Your task to perform on an android device: set an alarm Image 0: 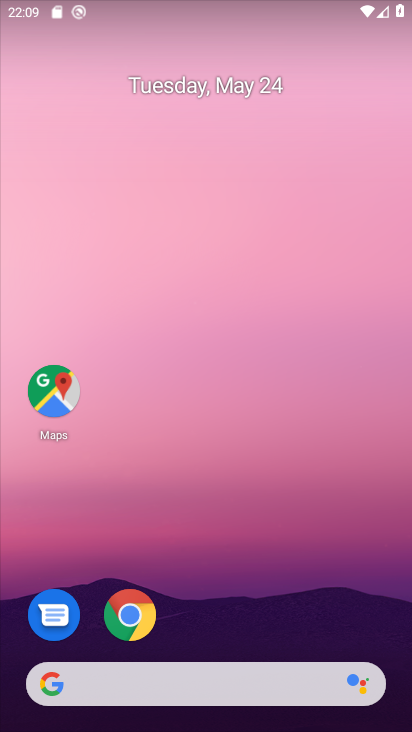
Step 0: drag from (220, 614) to (237, 219)
Your task to perform on an android device: set an alarm Image 1: 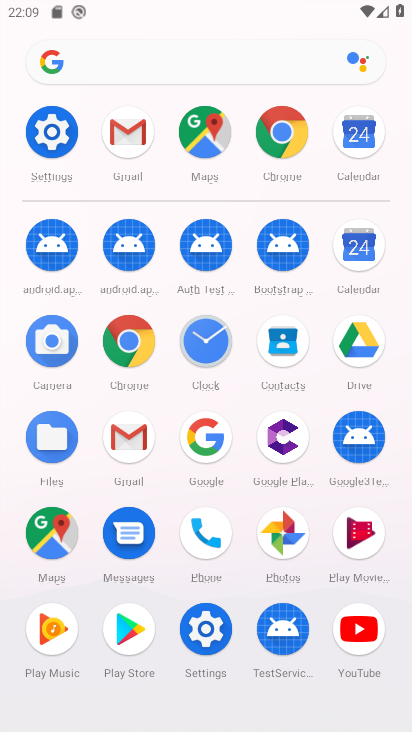
Step 1: click (198, 343)
Your task to perform on an android device: set an alarm Image 2: 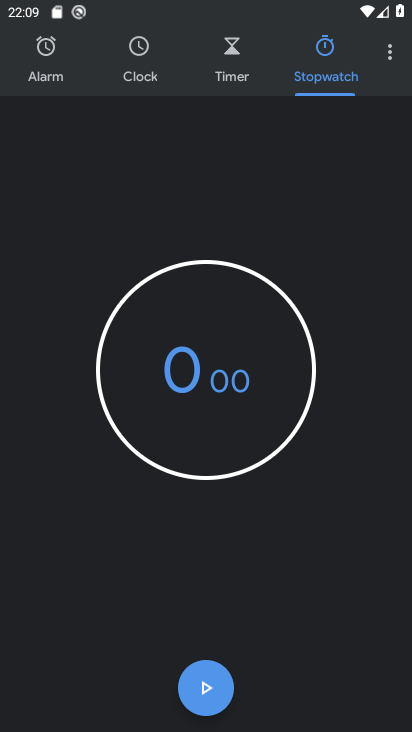
Step 2: click (39, 62)
Your task to perform on an android device: set an alarm Image 3: 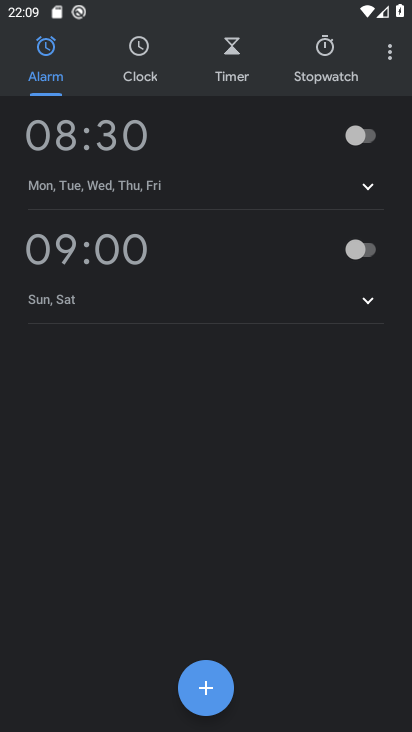
Step 3: click (367, 136)
Your task to perform on an android device: set an alarm Image 4: 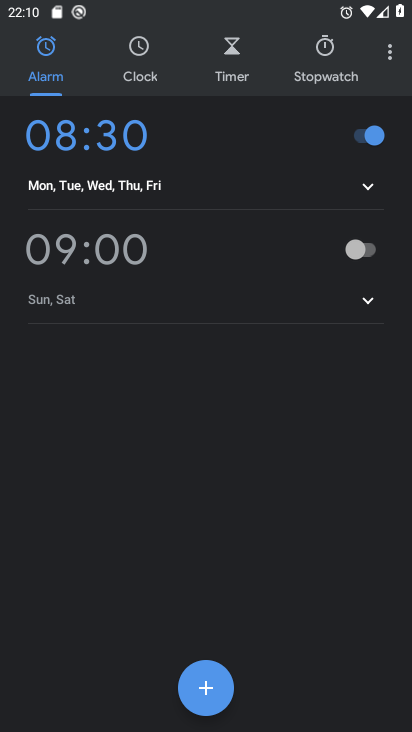
Step 4: task complete